Your task to perform on an android device: Go to calendar. Show me events next week Image 0: 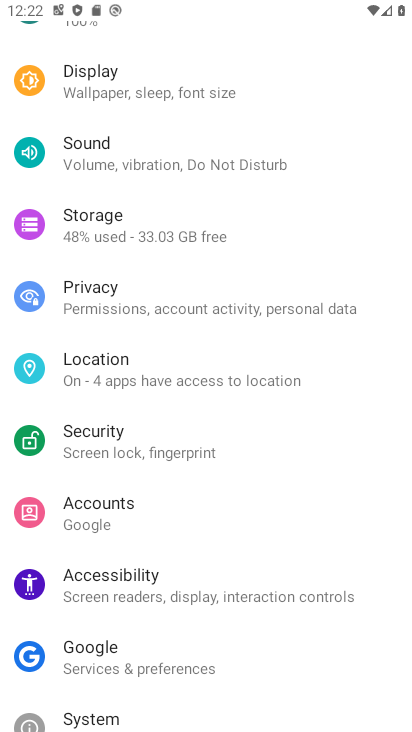
Step 0: press home button
Your task to perform on an android device: Go to calendar. Show me events next week Image 1: 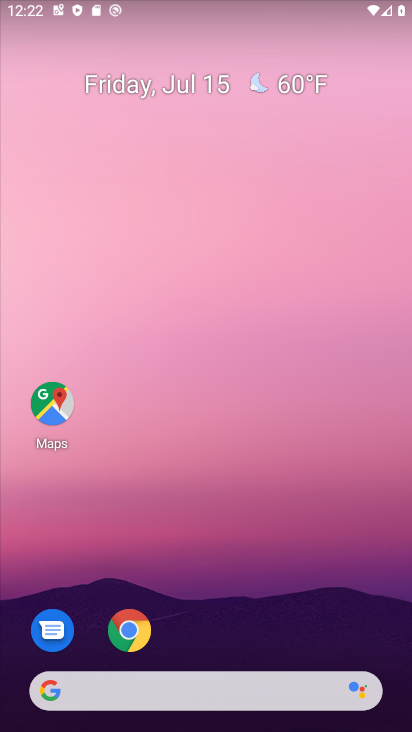
Step 1: drag from (40, 655) to (157, 161)
Your task to perform on an android device: Go to calendar. Show me events next week Image 2: 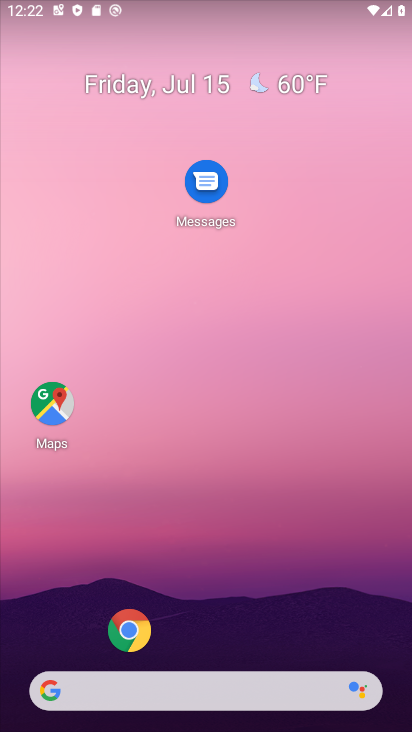
Step 2: drag from (28, 691) to (173, 127)
Your task to perform on an android device: Go to calendar. Show me events next week Image 3: 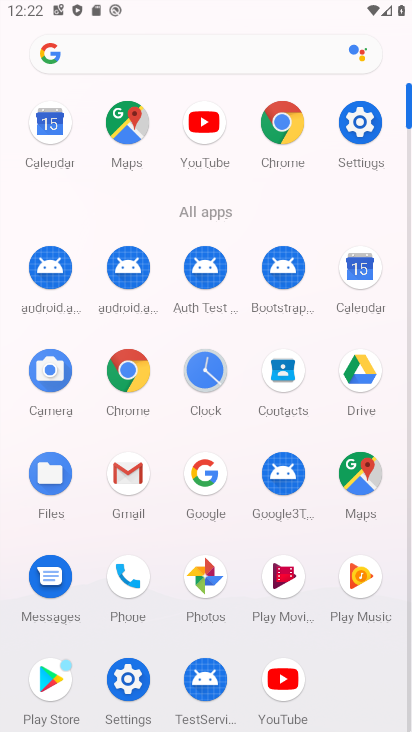
Step 3: click (352, 283)
Your task to perform on an android device: Go to calendar. Show me events next week Image 4: 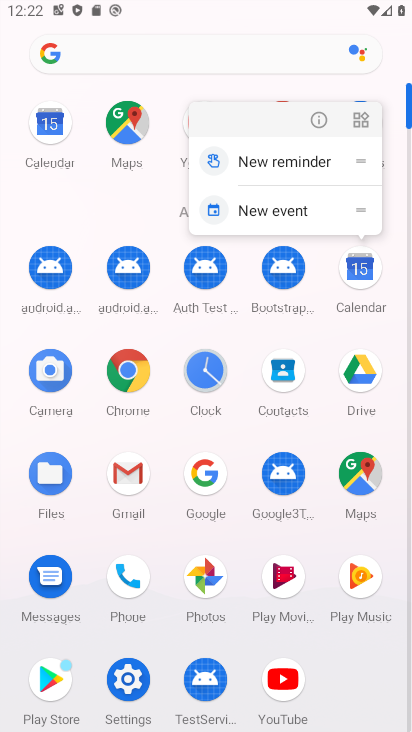
Step 4: click (350, 302)
Your task to perform on an android device: Go to calendar. Show me events next week Image 5: 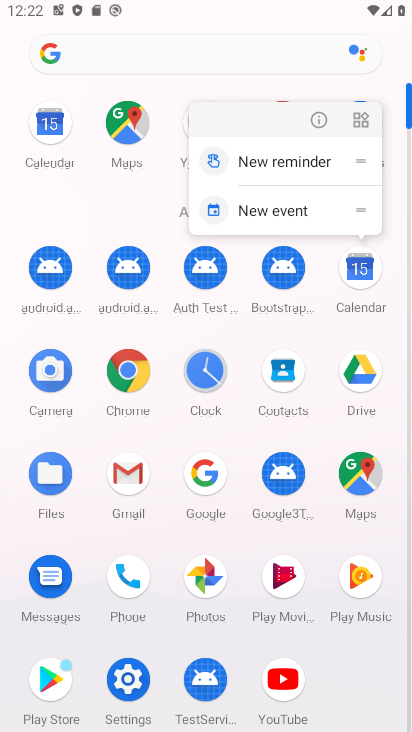
Step 5: click (347, 268)
Your task to perform on an android device: Go to calendar. Show me events next week Image 6: 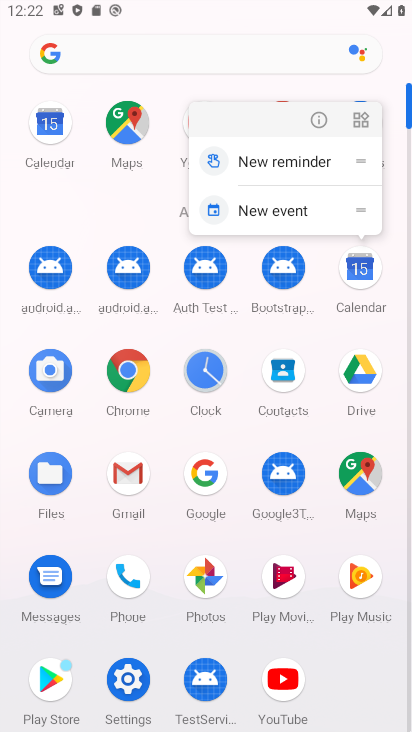
Step 6: task complete